Your task to perform on an android device: change keyboard looks Image 0: 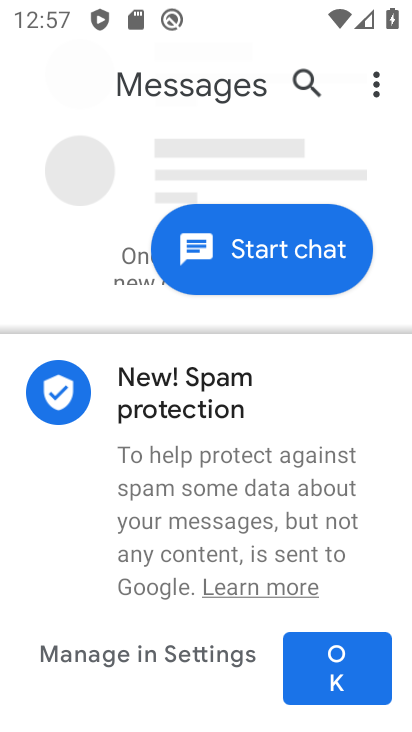
Step 0: press home button
Your task to perform on an android device: change keyboard looks Image 1: 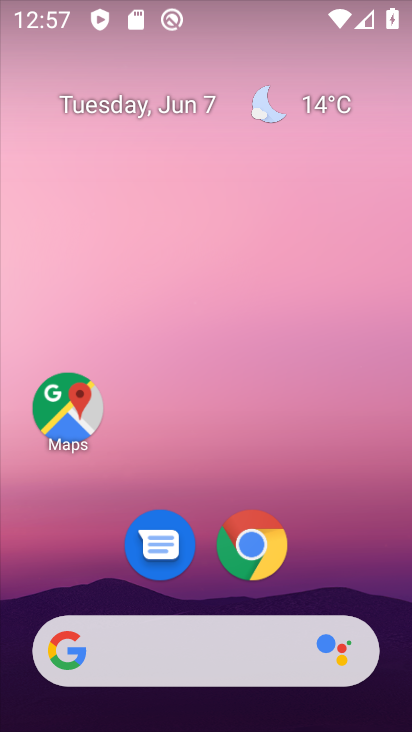
Step 1: drag from (365, 564) to (354, 154)
Your task to perform on an android device: change keyboard looks Image 2: 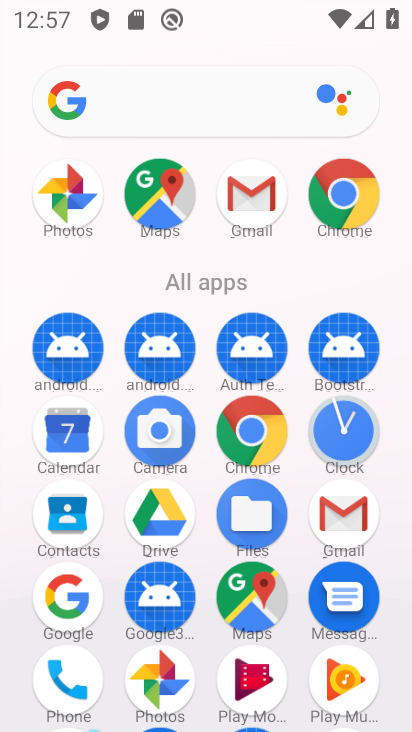
Step 2: drag from (157, 607) to (213, 235)
Your task to perform on an android device: change keyboard looks Image 3: 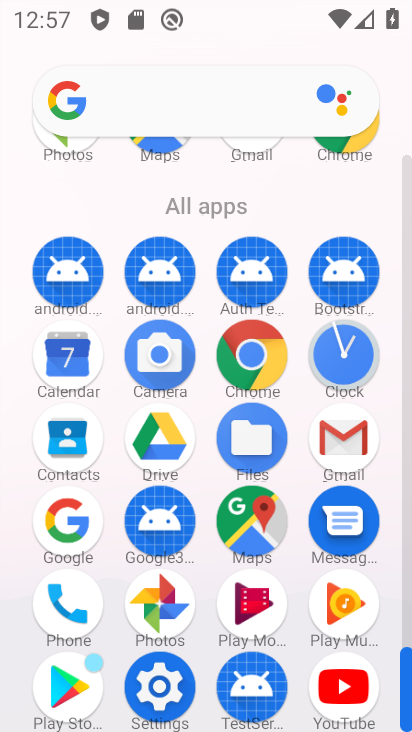
Step 3: click (150, 689)
Your task to perform on an android device: change keyboard looks Image 4: 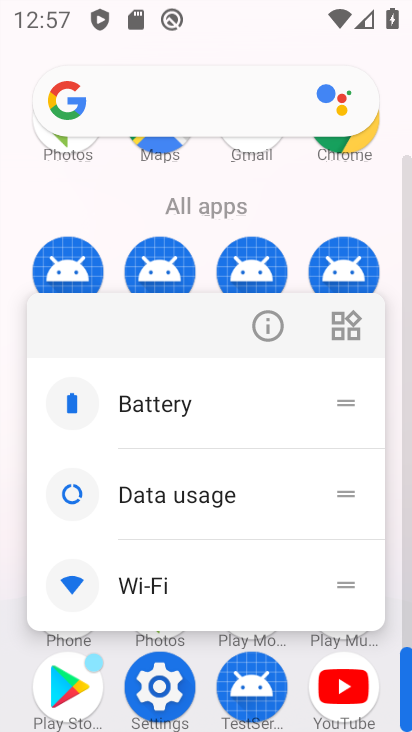
Step 4: click (149, 691)
Your task to perform on an android device: change keyboard looks Image 5: 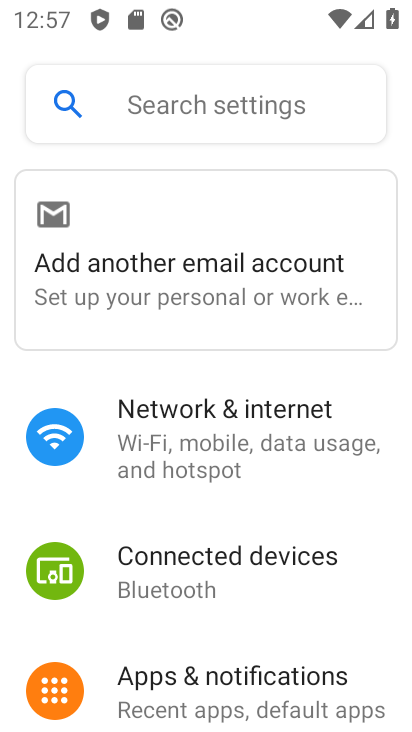
Step 5: drag from (337, 598) to (411, 278)
Your task to perform on an android device: change keyboard looks Image 6: 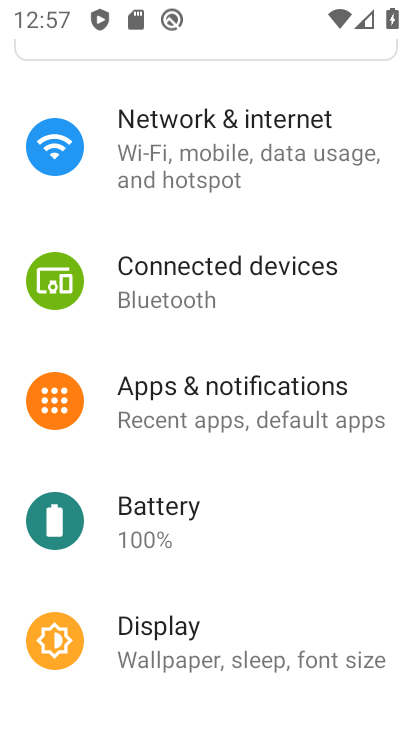
Step 6: drag from (327, 569) to (344, 231)
Your task to perform on an android device: change keyboard looks Image 7: 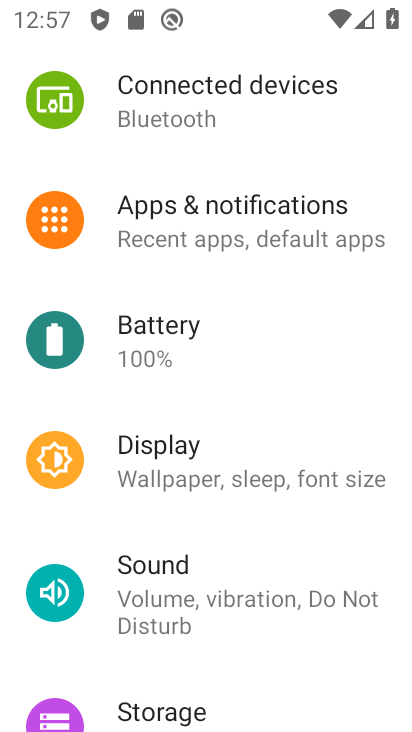
Step 7: drag from (290, 681) to (328, 431)
Your task to perform on an android device: change keyboard looks Image 8: 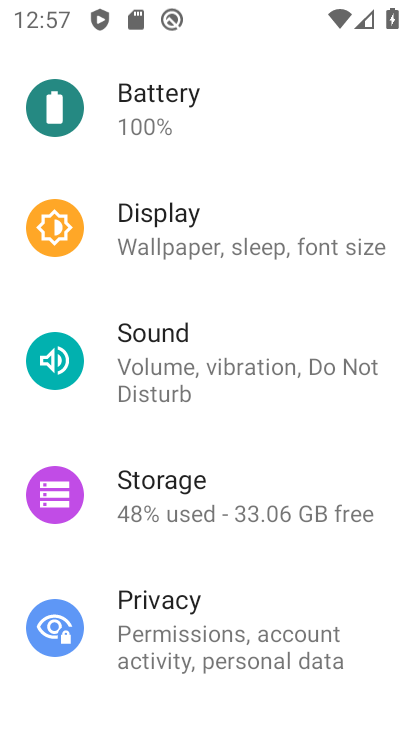
Step 8: drag from (276, 722) to (317, 237)
Your task to perform on an android device: change keyboard looks Image 9: 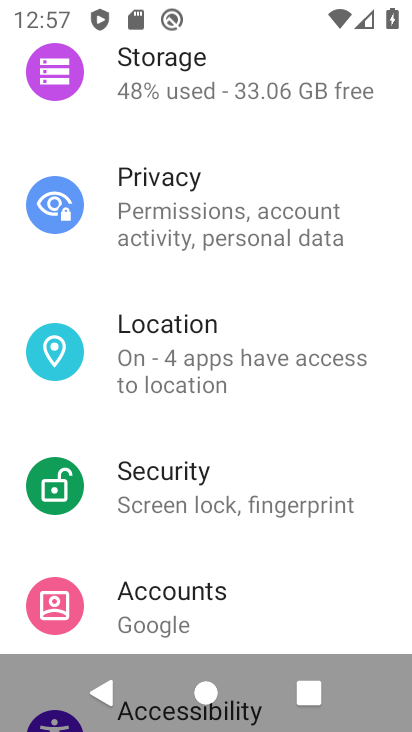
Step 9: drag from (245, 568) to (304, 216)
Your task to perform on an android device: change keyboard looks Image 10: 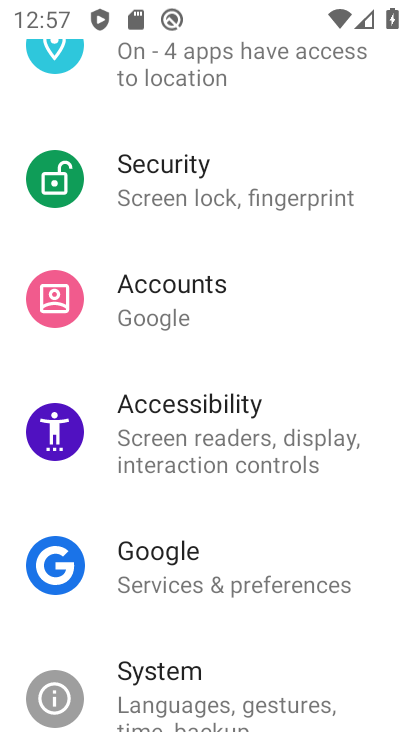
Step 10: drag from (238, 633) to (330, 287)
Your task to perform on an android device: change keyboard looks Image 11: 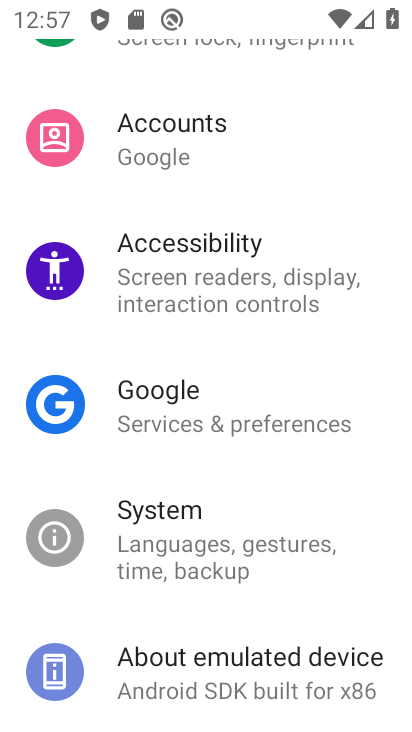
Step 11: click (240, 574)
Your task to perform on an android device: change keyboard looks Image 12: 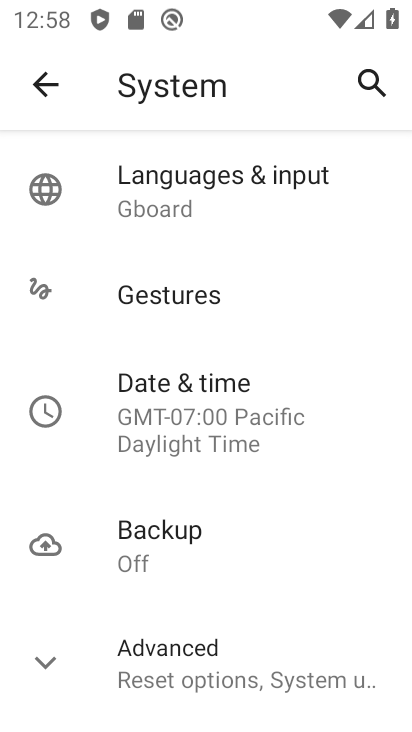
Step 12: click (308, 180)
Your task to perform on an android device: change keyboard looks Image 13: 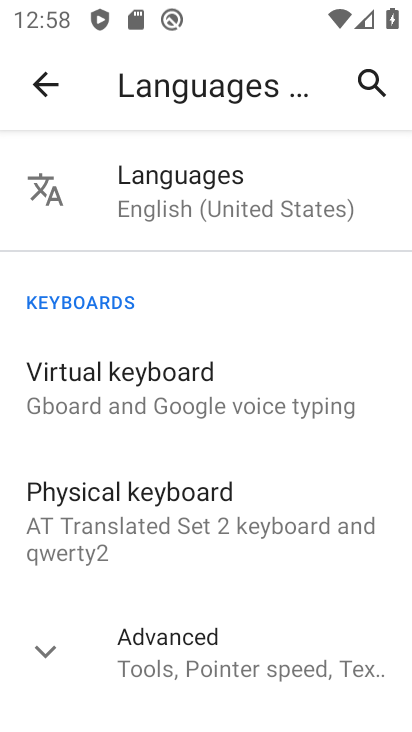
Step 13: click (229, 376)
Your task to perform on an android device: change keyboard looks Image 14: 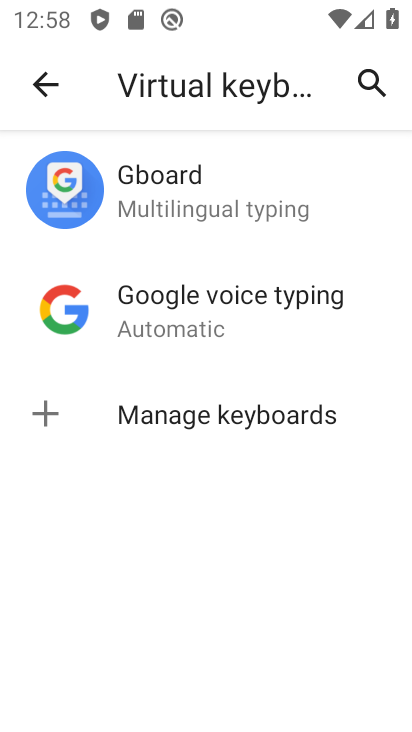
Step 14: click (280, 185)
Your task to perform on an android device: change keyboard looks Image 15: 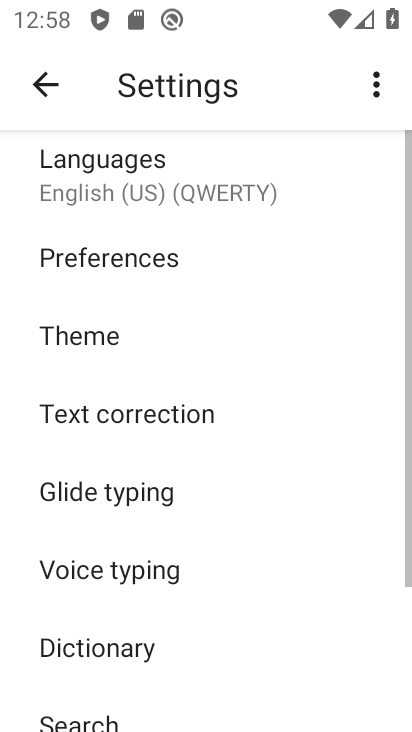
Step 15: click (205, 321)
Your task to perform on an android device: change keyboard looks Image 16: 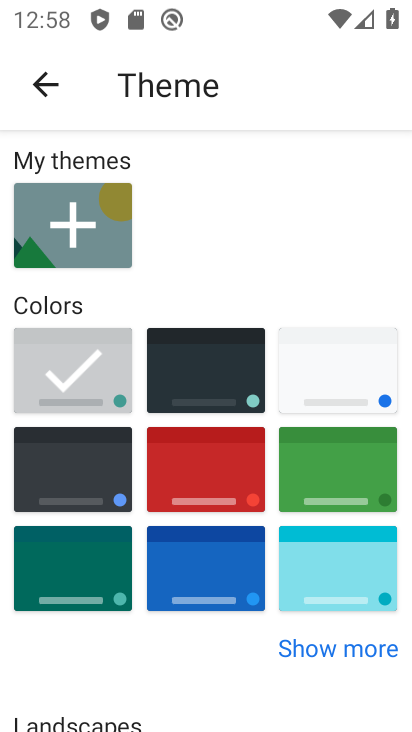
Step 16: click (200, 364)
Your task to perform on an android device: change keyboard looks Image 17: 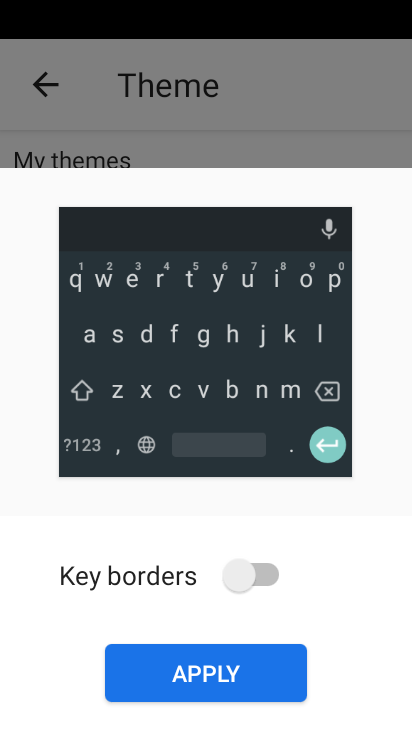
Step 17: click (180, 676)
Your task to perform on an android device: change keyboard looks Image 18: 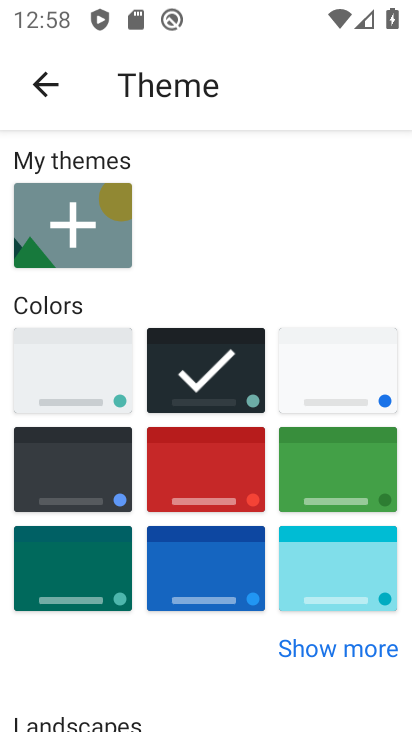
Step 18: task complete